Your task to perform on an android device: Open Wikipedia Image 0: 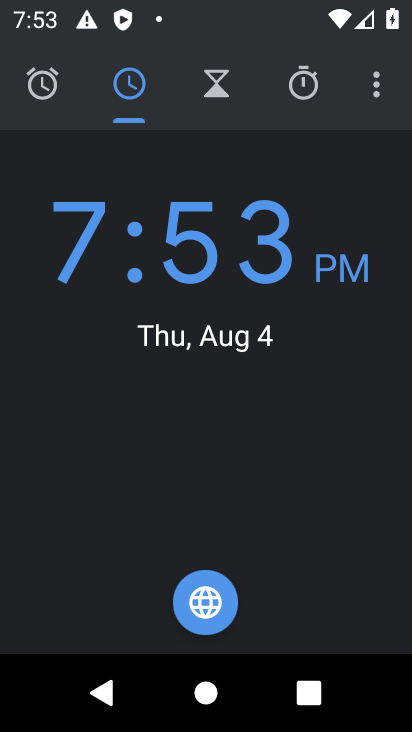
Step 0: press home button
Your task to perform on an android device: Open Wikipedia Image 1: 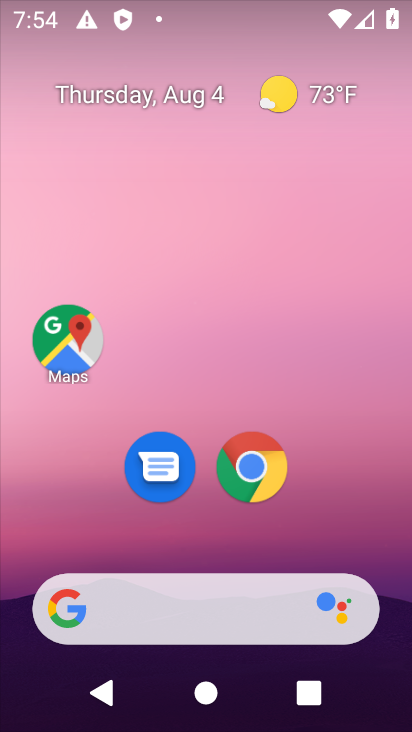
Step 1: drag from (300, 531) to (301, 60)
Your task to perform on an android device: Open Wikipedia Image 2: 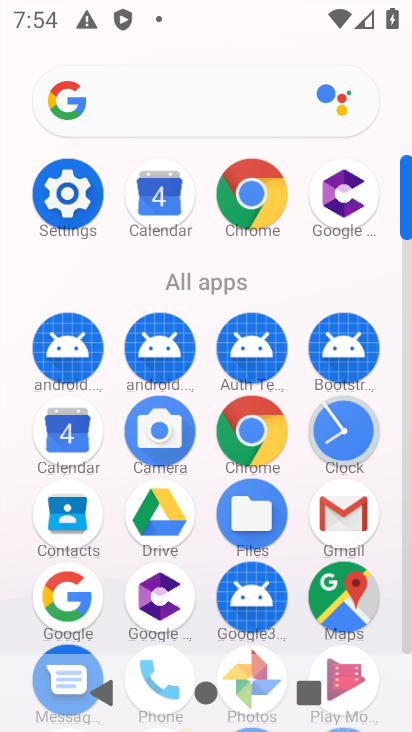
Step 2: click (257, 429)
Your task to perform on an android device: Open Wikipedia Image 3: 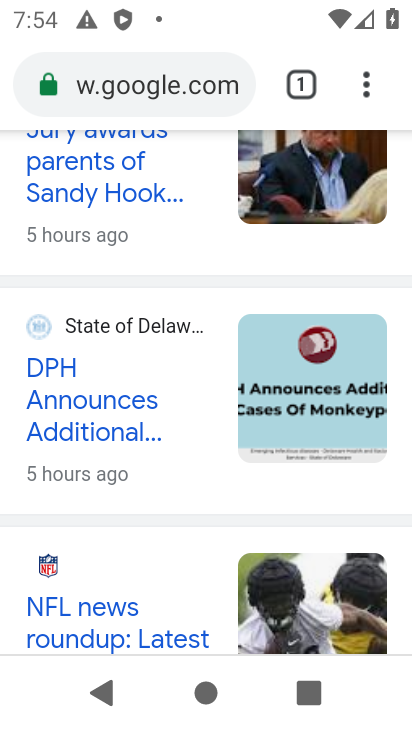
Step 3: click (151, 74)
Your task to perform on an android device: Open Wikipedia Image 4: 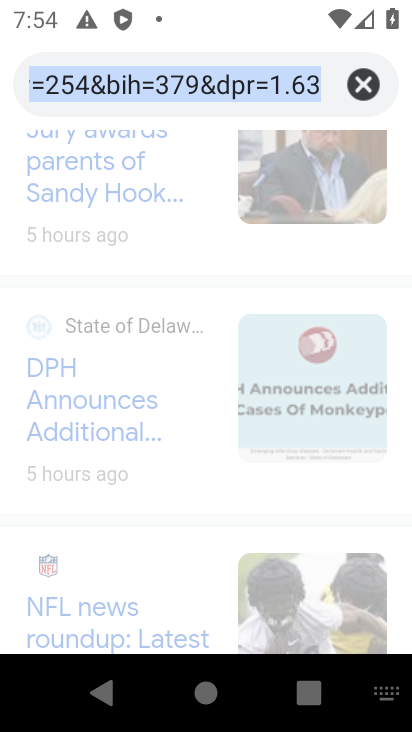
Step 4: click (363, 81)
Your task to perform on an android device: Open Wikipedia Image 5: 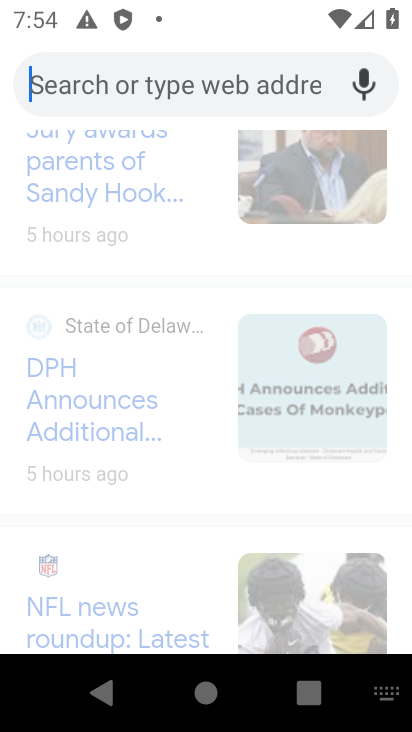
Step 5: type " Wikipedia"
Your task to perform on an android device: Open Wikipedia Image 6: 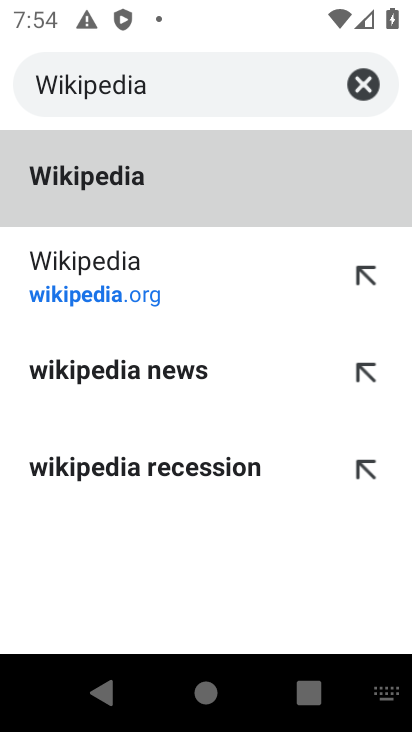
Step 6: click (93, 295)
Your task to perform on an android device: Open Wikipedia Image 7: 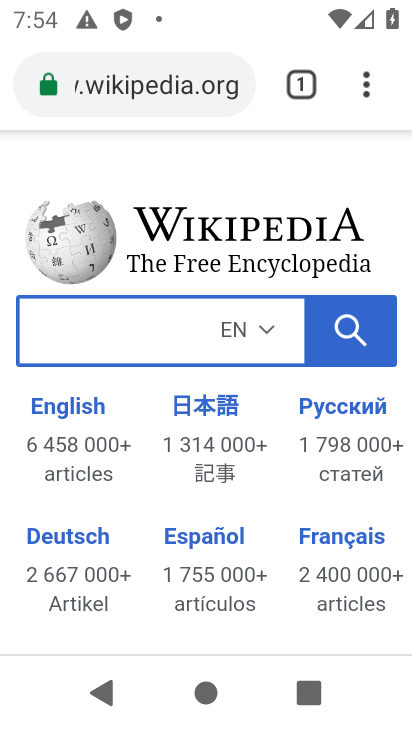
Step 7: task complete